Your task to perform on an android device: change notifications settings Image 0: 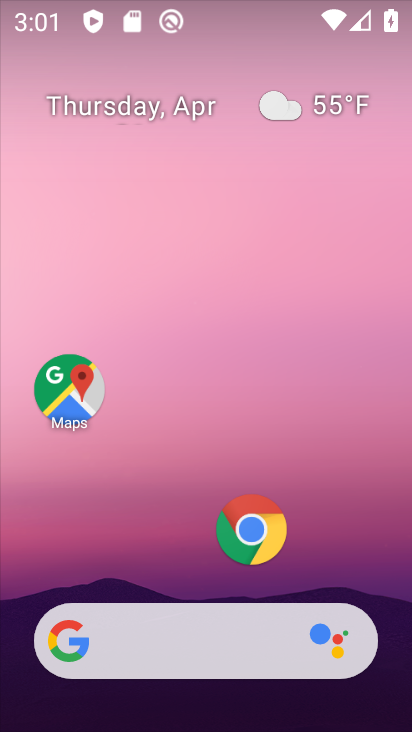
Step 0: drag from (177, 584) to (225, 145)
Your task to perform on an android device: change notifications settings Image 1: 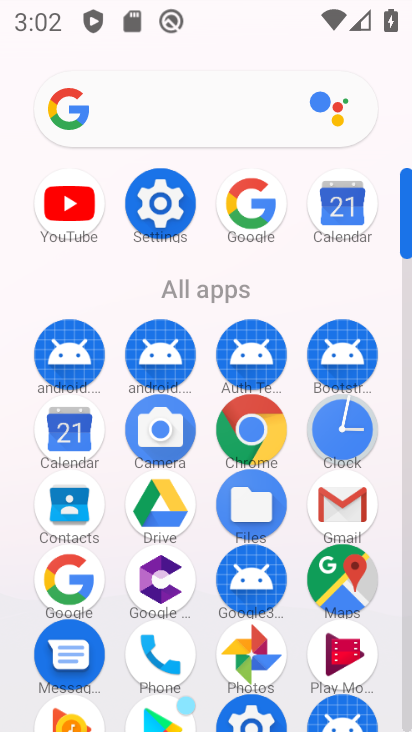
Step 1: drag from (201, 650) to (244, 277)
Your task to perform on an android device: change notifications settings Image 2: 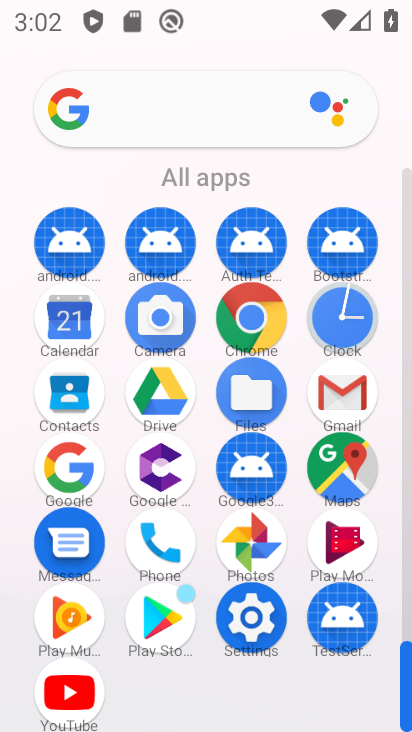
Step 2: click (246, 621)
Your task to perform on an android device: change notifications settings Image 3: 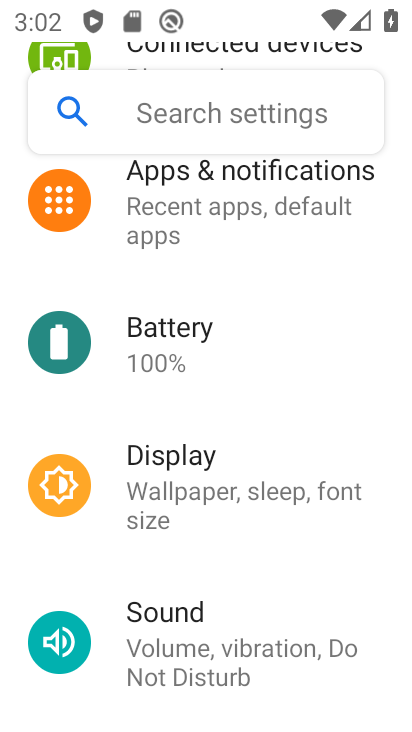
Step 3: click (231, 217)
Your task to perform on an android device: change notifications settings Image 4: 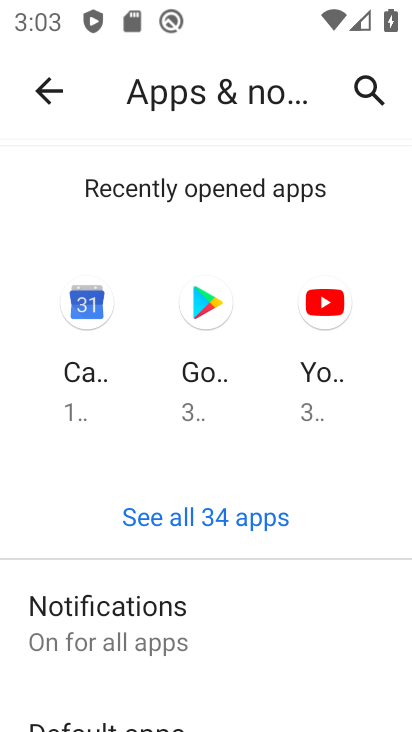
Step 4: task complete